Your task to perform on an android device: Open location settings Image 0: 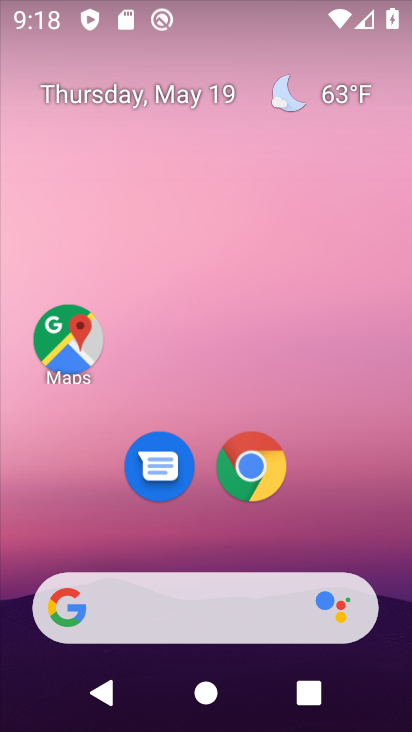
Step 0: drag from (400, 616) to (410, 503)
Your task to perform on an android device: Open location settings Image 1: 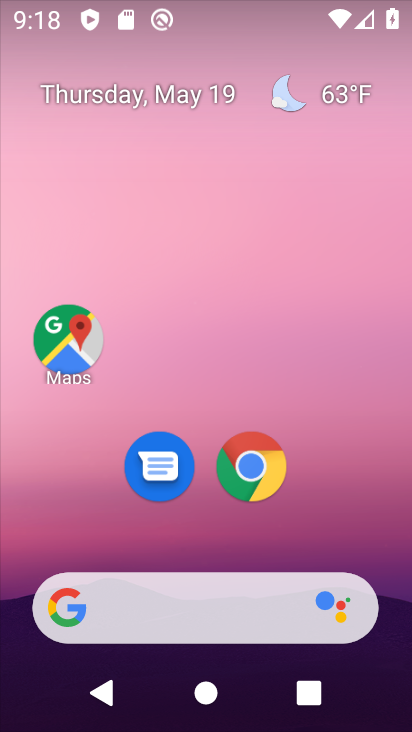
Step 1: drag from (397, 619) to (184, 16)
Your task to perform on an android device: Open location settings Image 2: 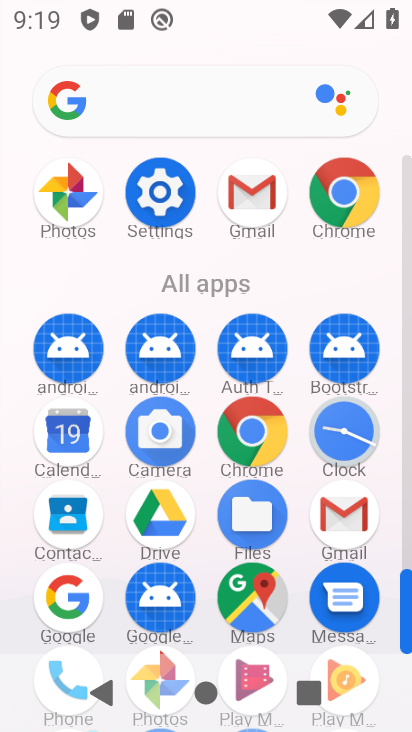
Step 2: click (160, 212)
Your task to perform on an android device: Open location settings Image 3: 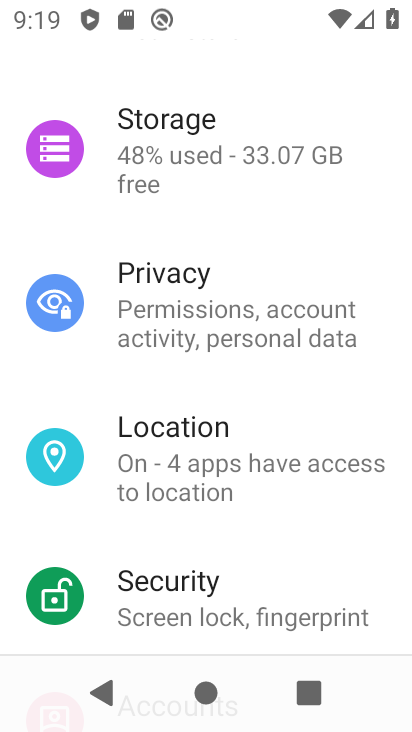
Step 3: click (204, 468)
Your task to perform on an android device: Open location settings Image 4: 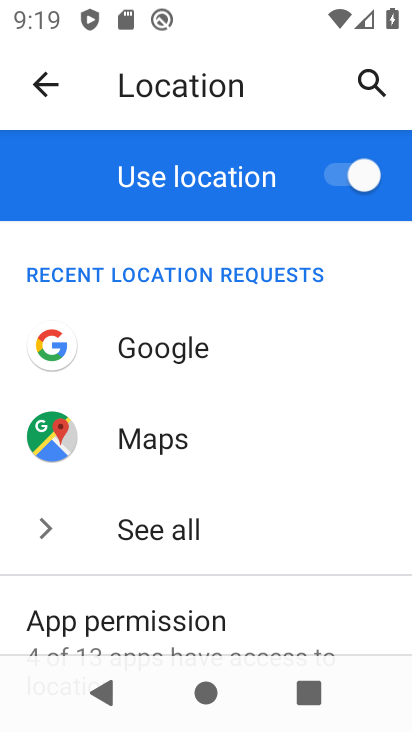
Step 4: task complete